Your task to perform on an android device: delete browsing data in the chrome app Image 0: 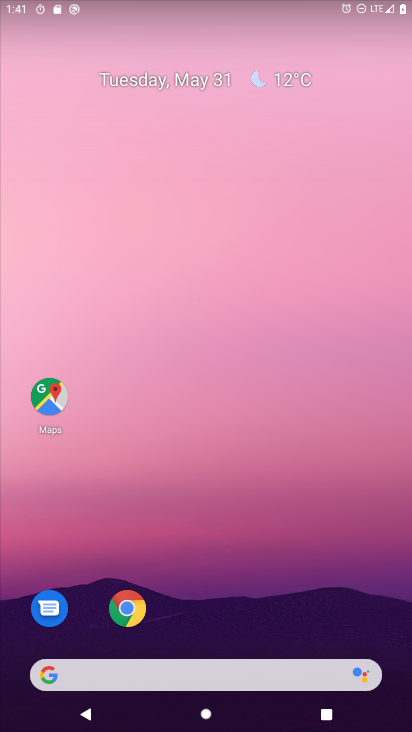
Step 0: click (129, 609)
Your task to perform on an android device: delete browsing data in the chrome app Image 1: 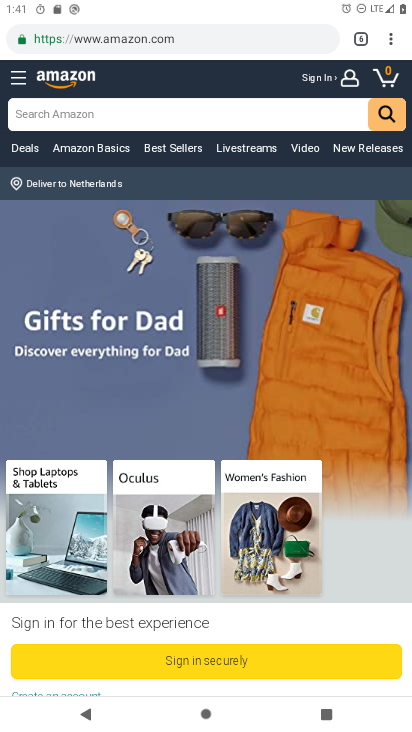
Step 1: click (394, 38)
Your task to perform on an android device: delete browsing data in the chrome app Image 2: 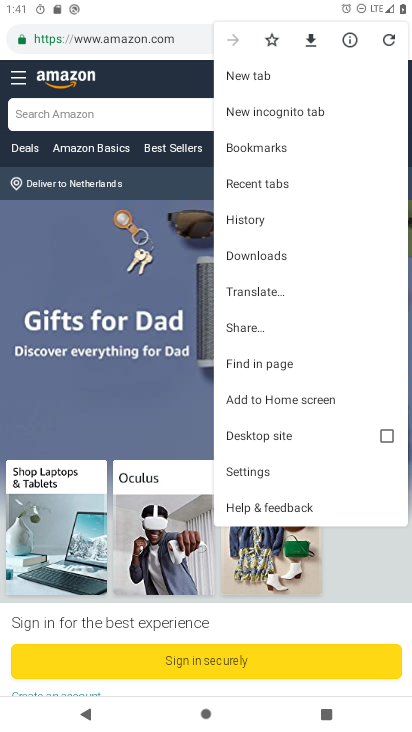
Step 2: click (252, 472)
Your task to perform on an android device: delete browsing data in the chrome app Image 3: 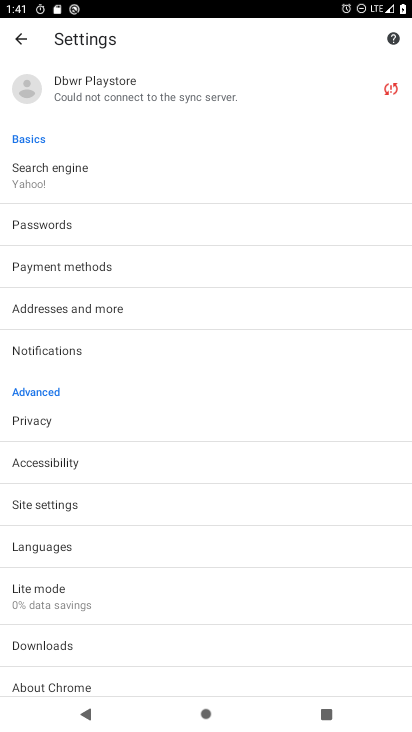
Step 3: click (24, 422)
Your task to perform on an android device: delete browsing data in the chrome app Image 4: 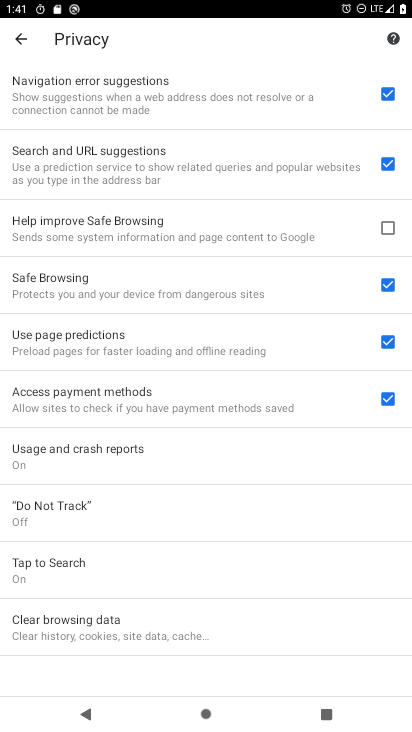
Step 4: click (80, 634)
Your task to perform on an android device: delete browsing data in the chrome app Image 5: 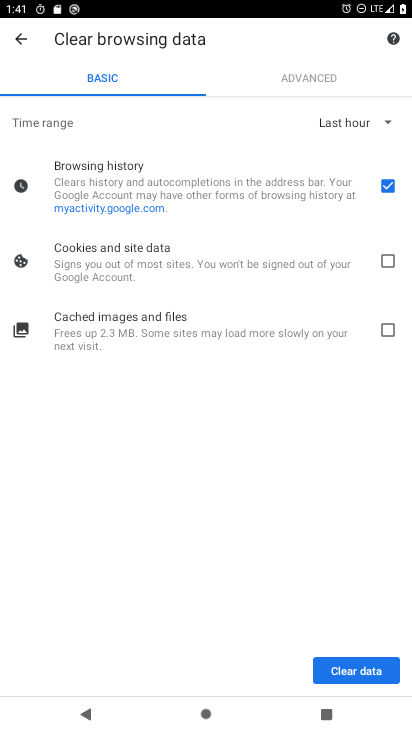
Step 5: click (360, 675)
Your task to perform on an android device: delete browsing data in the chrome app Image 6: 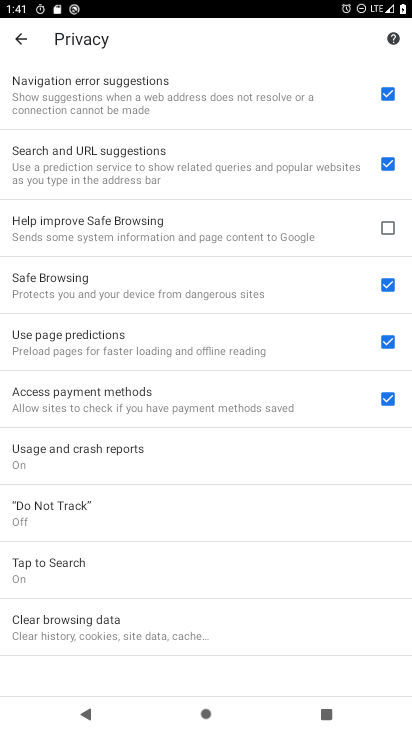
Step 6: task complete